Your task to perform on an android device: open chrome privacy settings Image 0: 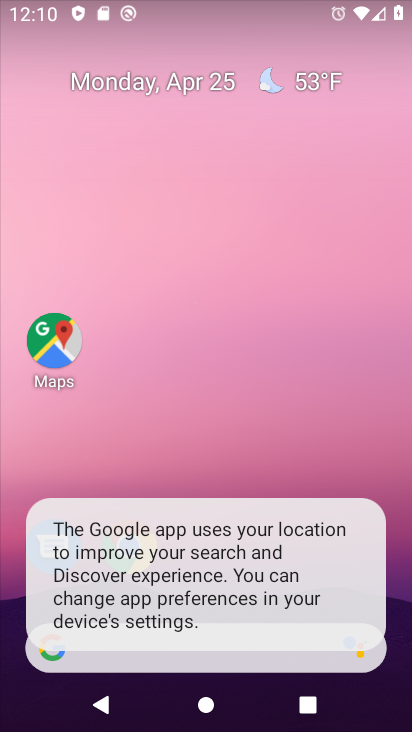
Step 0: click (212, 430)
Your task to perform on an android device: open chrome privacy settings Image 1: 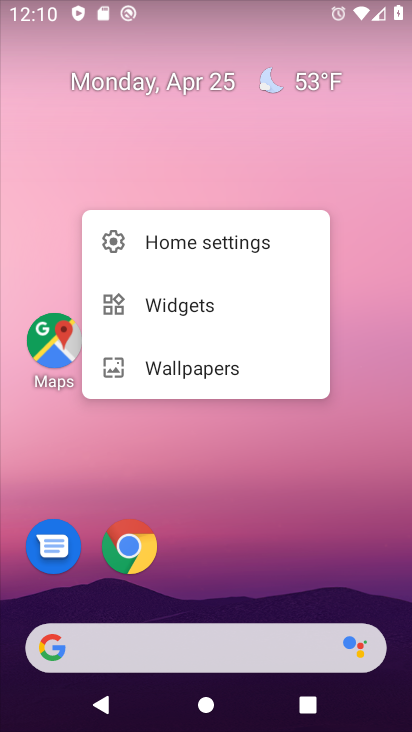
Step 1: click (137, 551)
Your task to perform on an android device: open chrome privacy settings Image 2: 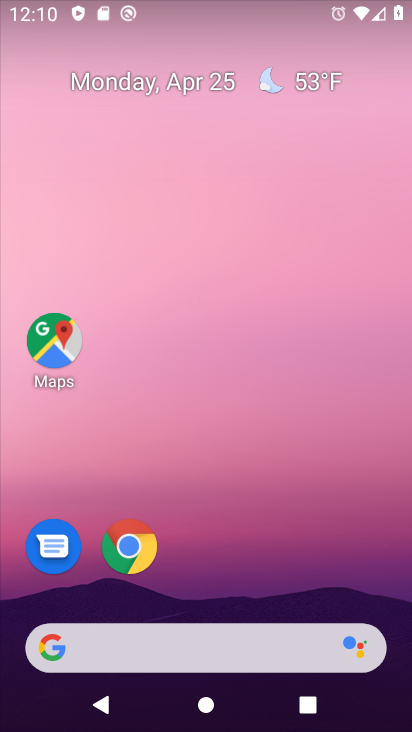
Step 2: click (138, 549)
Your task to perform on an android device: open chrome privacy settings Image 3: 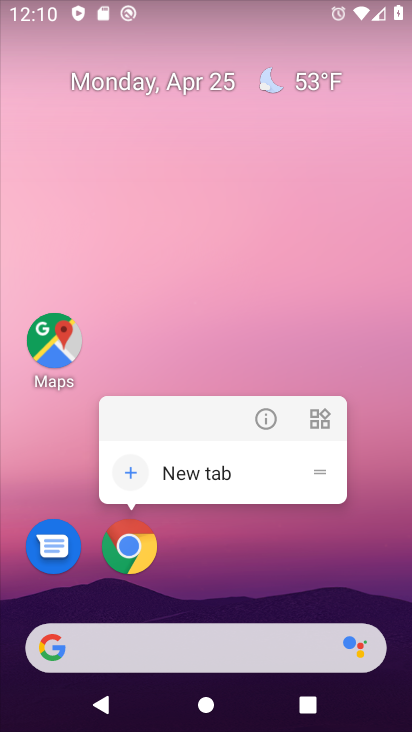
Step 3: click (138, 549)
Your task to perform on an android device: open chrome privacy settings Image 4: 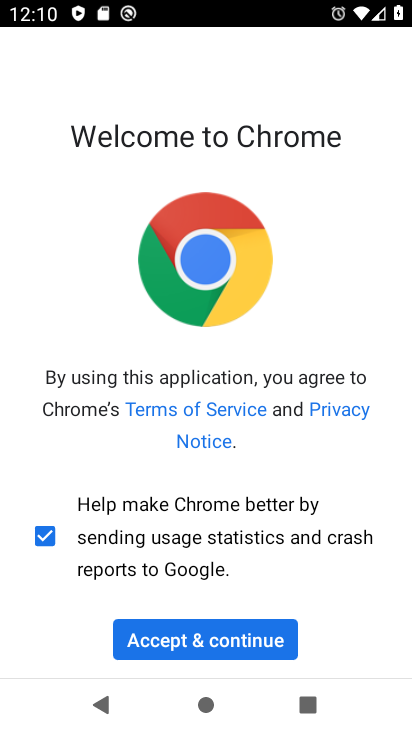
Step 4: click (200, 638)
Your task to perform on an android device: open chrome privacy settings Image 5: 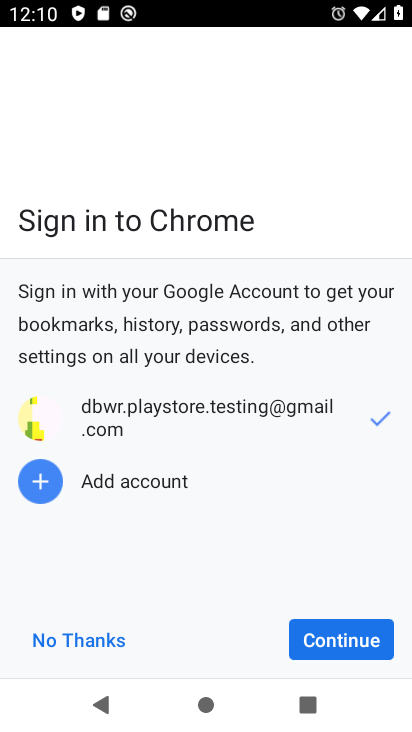
Step 5: click (316, 648)
Your task to perform on an android device: open chrome privacy settings Image 6: 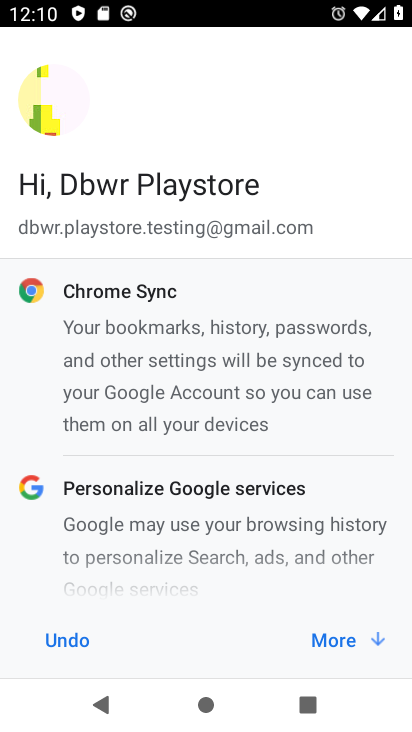
Step 6: click (326, 628)
Your task to perform on an android device: open chrome privacy settings Image 7: 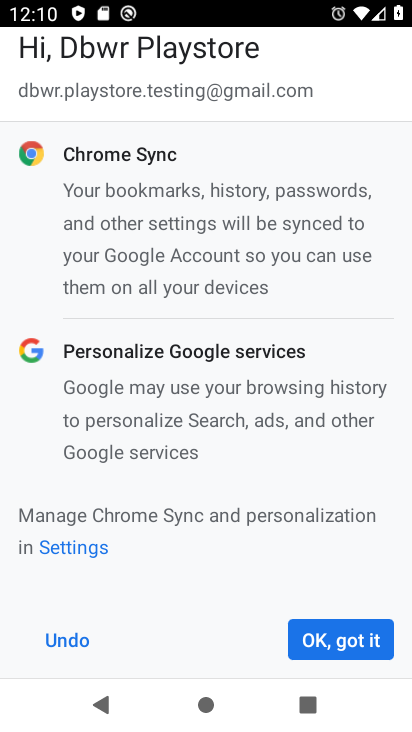
Step 7: click (326, 632)
Your task to perform on an android device: open chrome privacy settings Image 8: 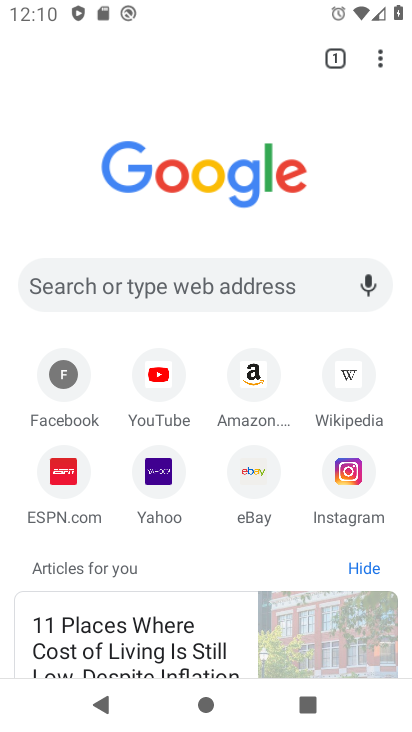
Step 8: click (376, 57)
Your task to perform on an android device: open chrome privacy settings Image 9: 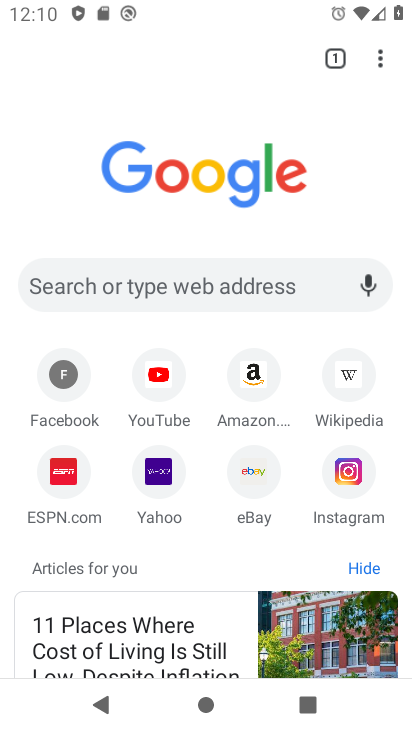
Step 9: drag from (375, 63) to (205, 487)
Your task to perform on an android device: open chrome privacy settings Image 10: 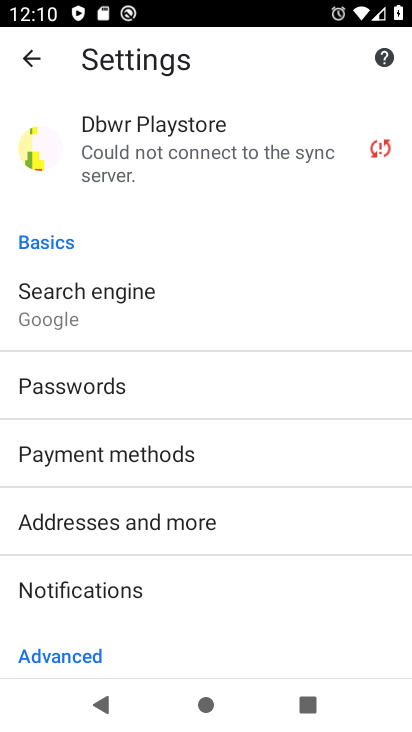
Step 10: drag from (199, 613) to (229, 285)
Your task to perform on an android device: open chrome privacy settings Image 11: 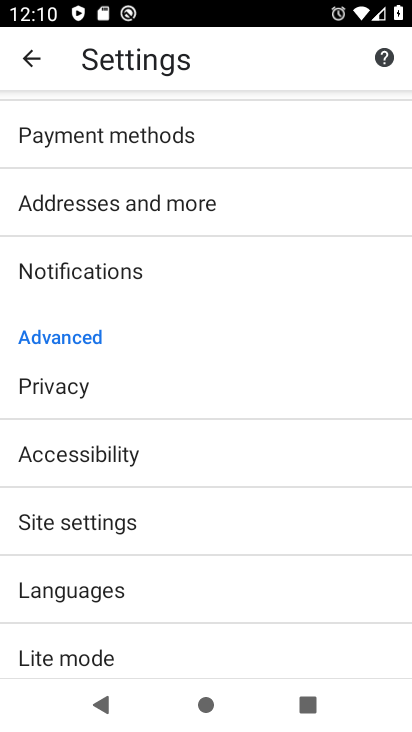
Step 11: click (121, 378)
Your task to perform on an android device: open chrome privacy settings Image 12: 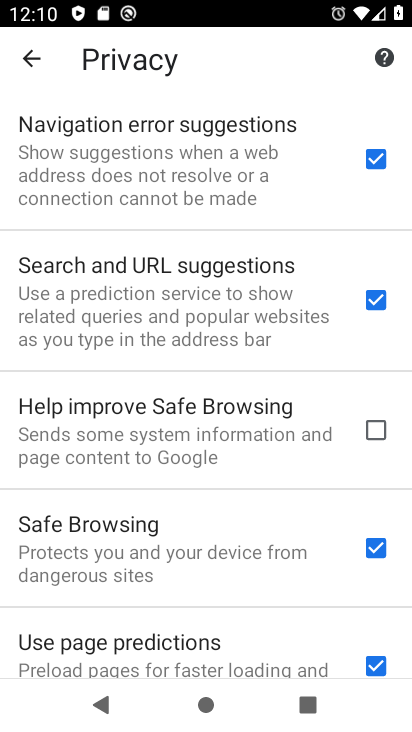
Step 12: task complete